Your task to perform on an android device: toggle priority inbox in the gmail app Image 0: 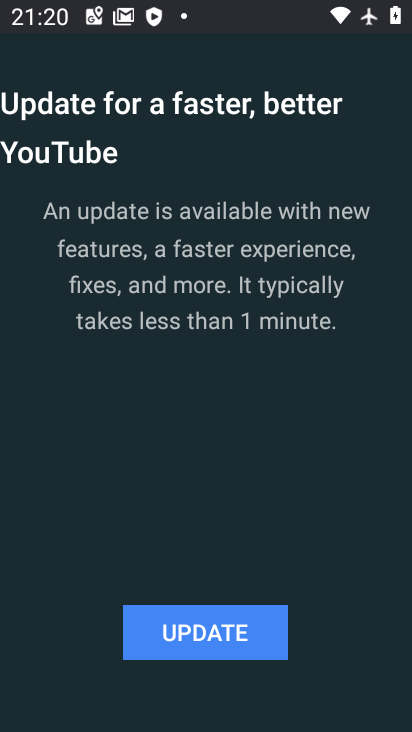
Step 0: press back button
Your task to perform on an android device: toggle priority inbox in the gmail app Image 1: 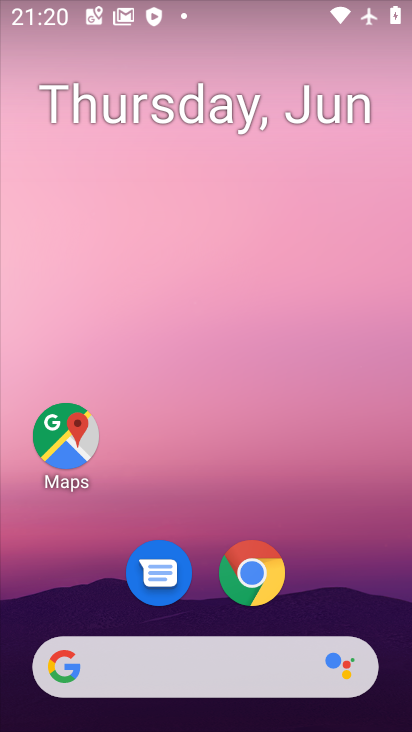
Step 1: click (328, 526)
Your task to perform on an android device: toggle priority inbox in the gmail app Image 2: 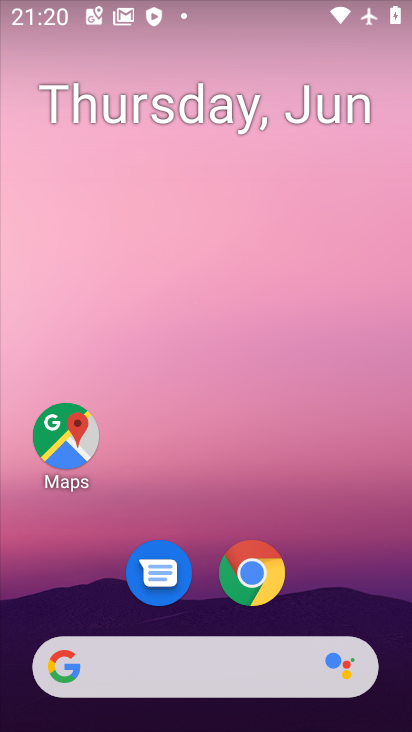
Step 2: drag from (207, 599) to (204, 333)
Your task to perform on an android device: toggle priority inbox in the gmail app Image 3: 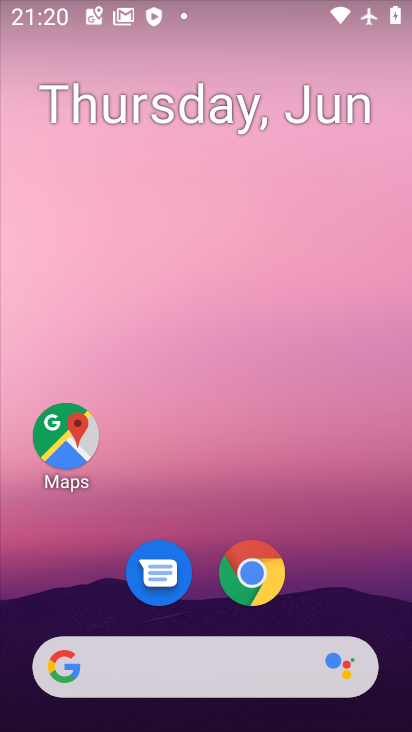
Step 3: drag from (229, 606) to (192, 173)
Your task to perform on an android device: toggle priority inbox in the gmail app Image 4: 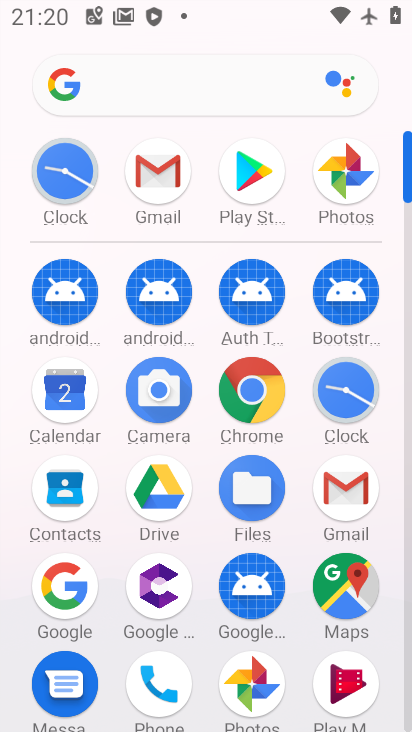
Step 4: click (342, 468)
Your task to perform on an android device: toggle priority inbox in the gmail app Image 5: 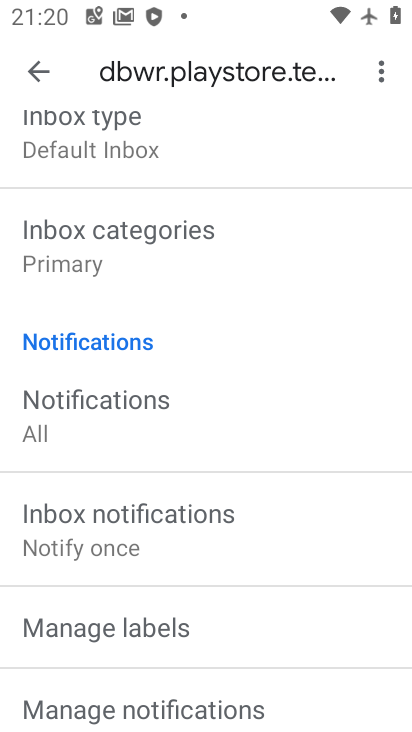
Step 5: click (126, 148)
Your task to perform on an android device: toggle priority inbox in the gmail app Image 6: 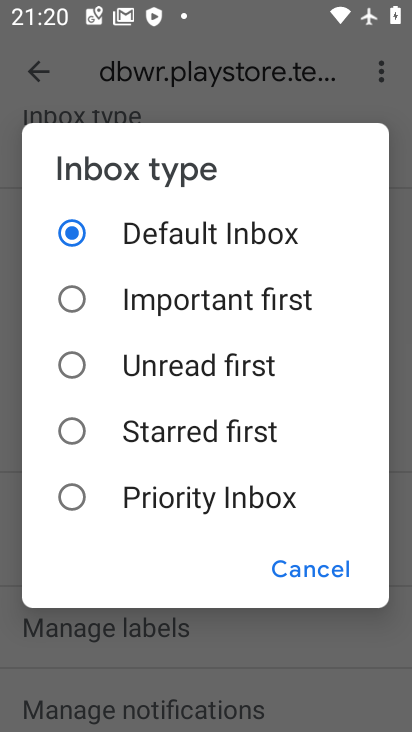
Step 6: click (173, 525)
Your task to perform on an android device: toggle priority inbox in the gmail app Image 7: 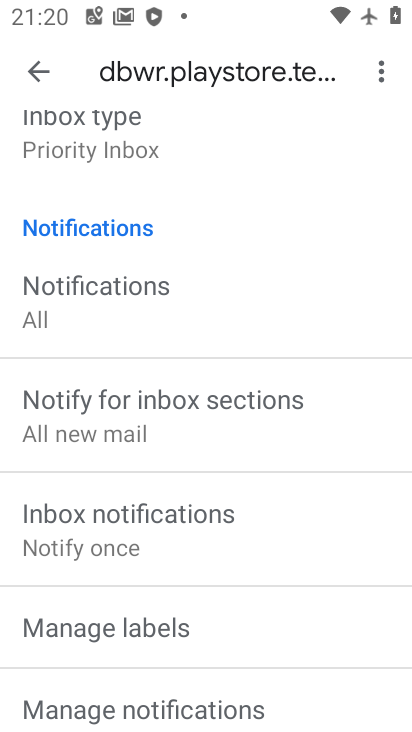
Step 7: task complete